Your task to perform on an android device: open app "Airtel Thanks" (install if not already installed), go to login, and select forgot password Image 0: 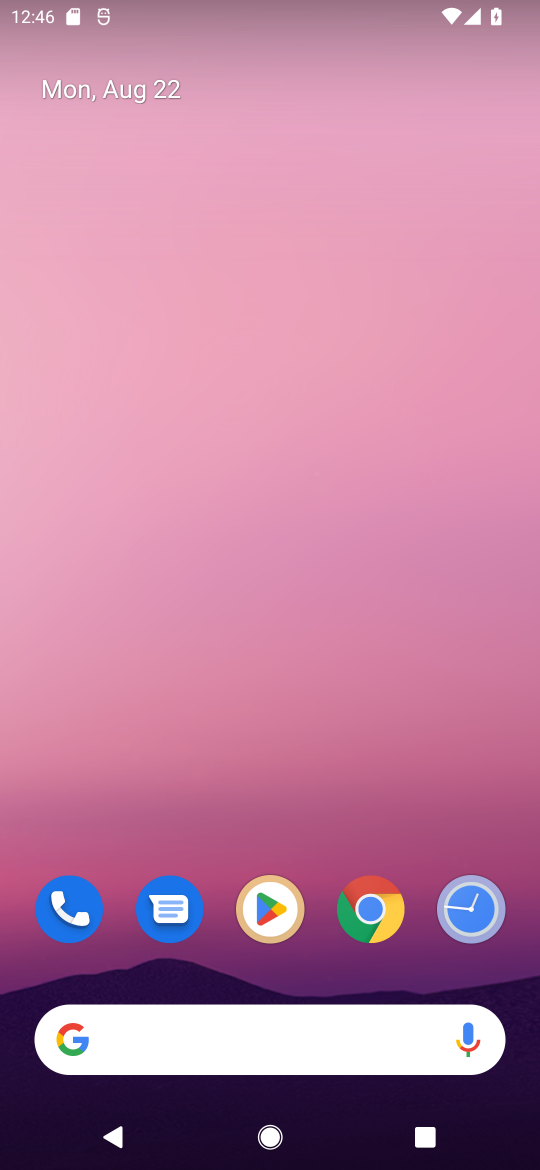
Step 0: click (281, 909)
Your task to perform on an android device: open app "Airtel Thanks" (install if not already installed), go to login, and select forgot password Image 1: 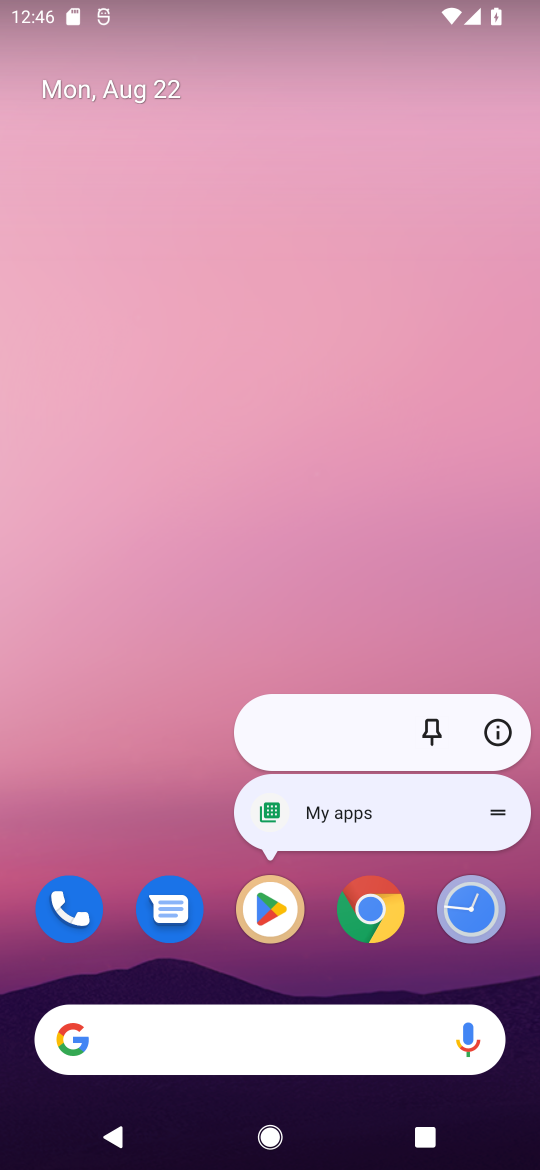
Step 1: click (274, 906)
Your task to perform on an android device: open app "Airtel Thanks" (install if not already installed), go to login, and select forgot password Image 2: 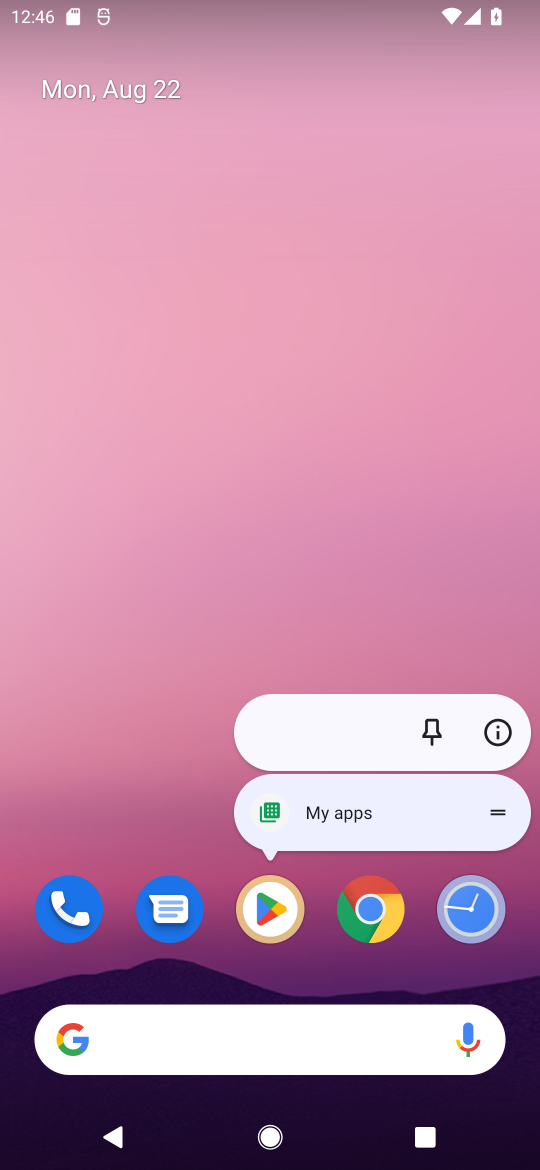
Step 2: click (263, 910)
Your task to perform on an android device: open app "Airtel Thanks" (install if not already installed), go to login, and select forgot password Image 3: 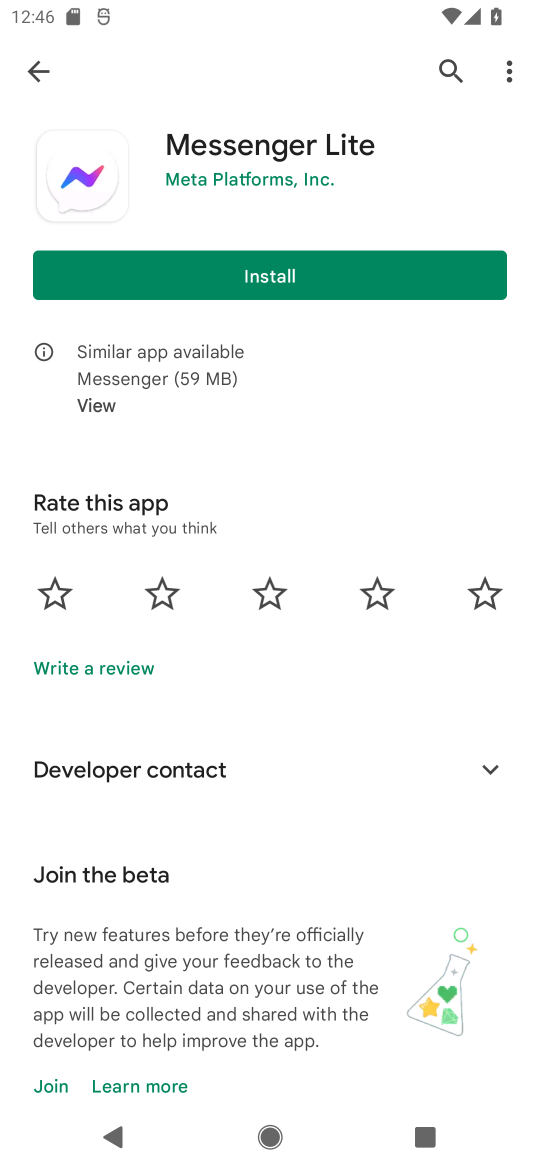
Step 3: click (460, 61)
Your task to perform on an android device: open app "Airtel Thanks" (install if not already installed), go to login, and select forgot password Image 4: 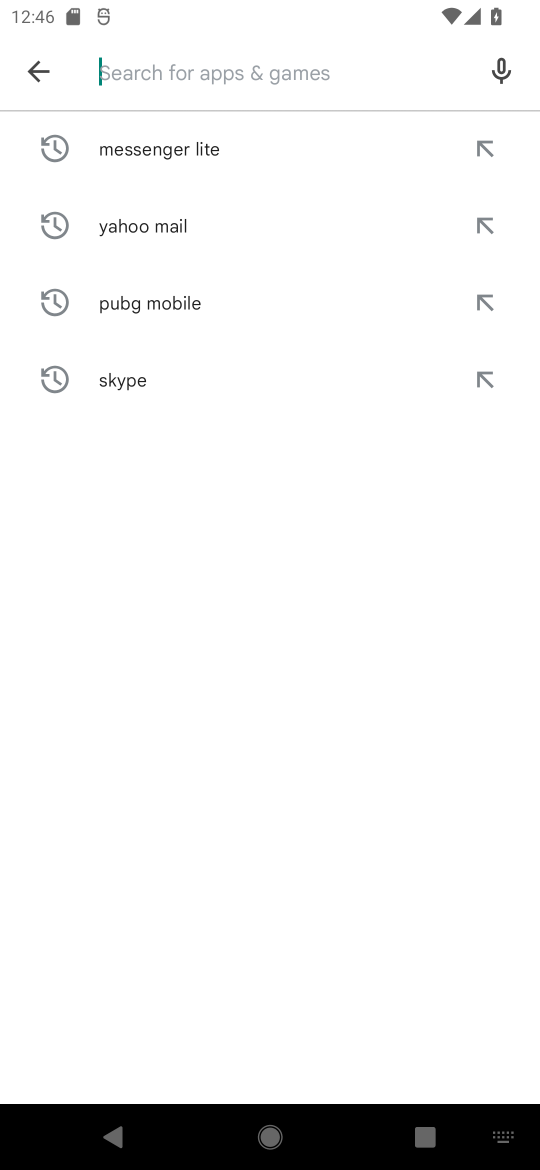
Step 4: click (122, 89)
Your task to perform on an android device: open app "Airtel Thanks" (install if not already installed), go to login, and select forgot password Image 5: 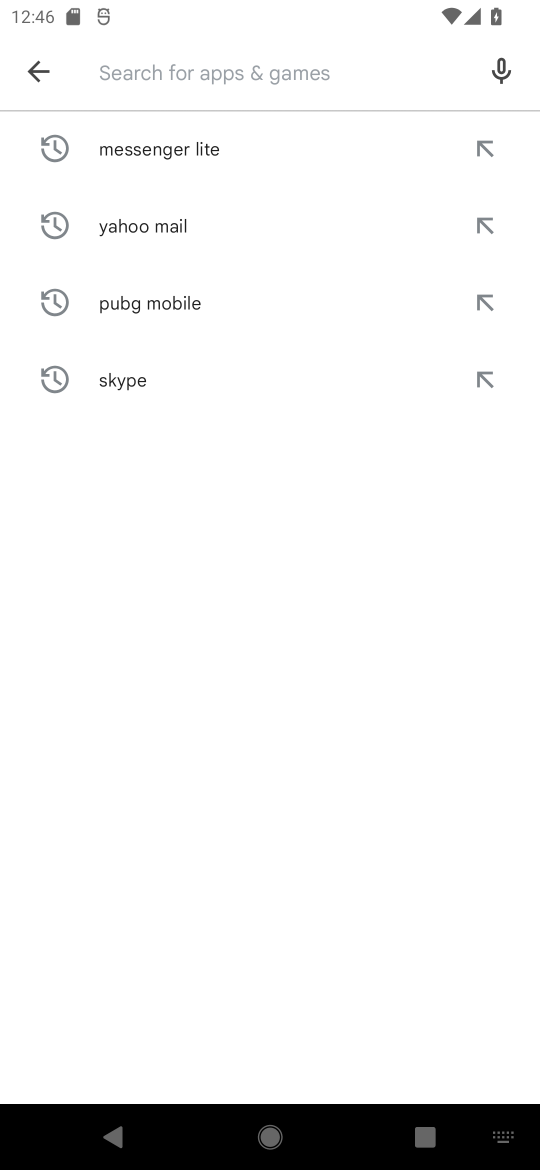
Step 5: type "Airtel Thanks"
Your task to perform on an android device: open app "Airtel Thanks" (install if not already installed), go to login, and select forgot password Image 6: 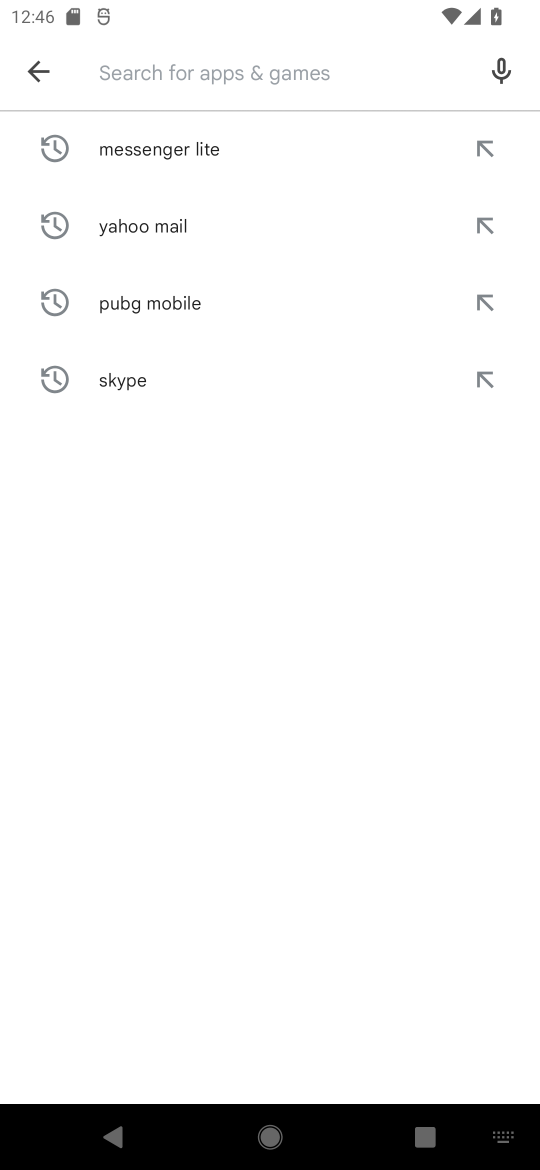
Step 6: click (360, 793)
Your task to perform on an android device: open app "Airtel Thanks" (install if not already installed), go to login, and select forgot password Image 7: 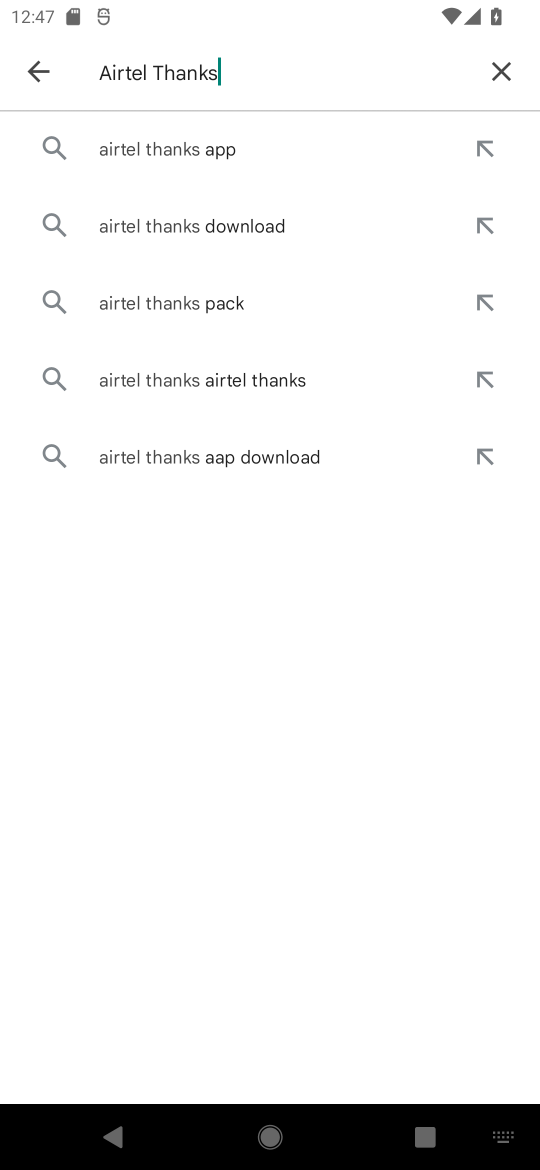
Step 7: click (217, 155)
Your task to perform on an android device: open app "Airtel Thanks" (install if not already installed), go to login, and select forgot password Image 8: 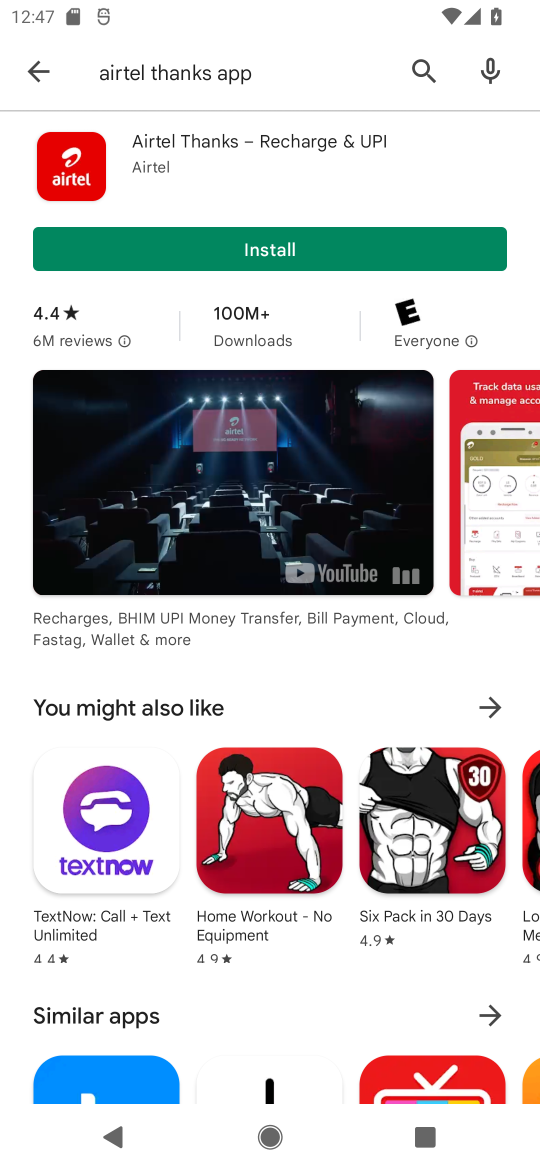
Step 8: click (267, 236)
Your task to perform on an android device: open app "Airtel Thanks" (install if not already installed), go to login, and select forgot password Image 9: 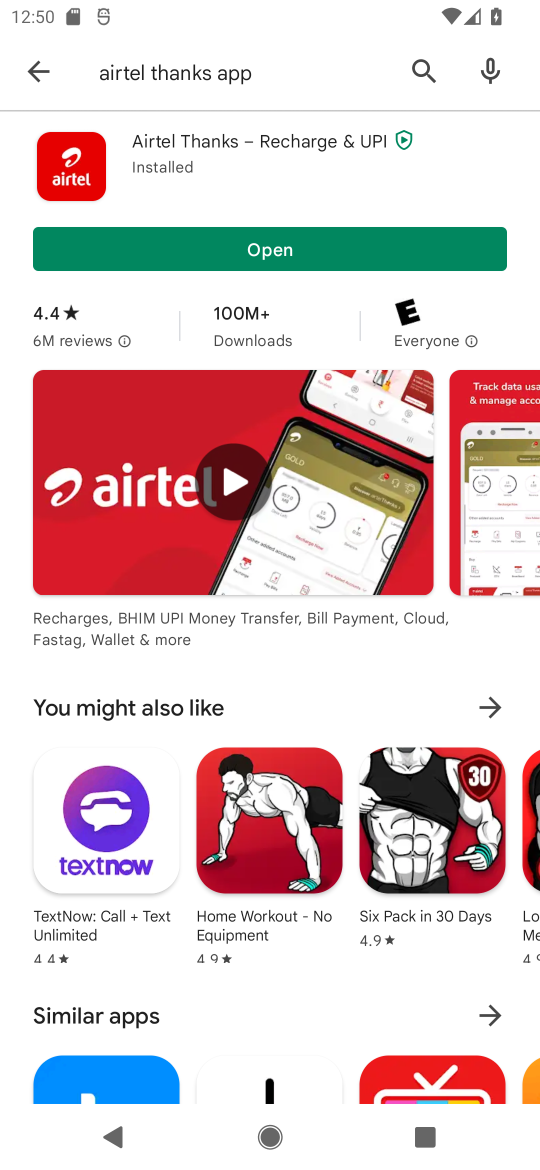
Step 9: click (147, 259)
Your task to perform on an android device: open app "Airtel Thanks" (install if not already installed), go to login, and select forgot password Image 10: 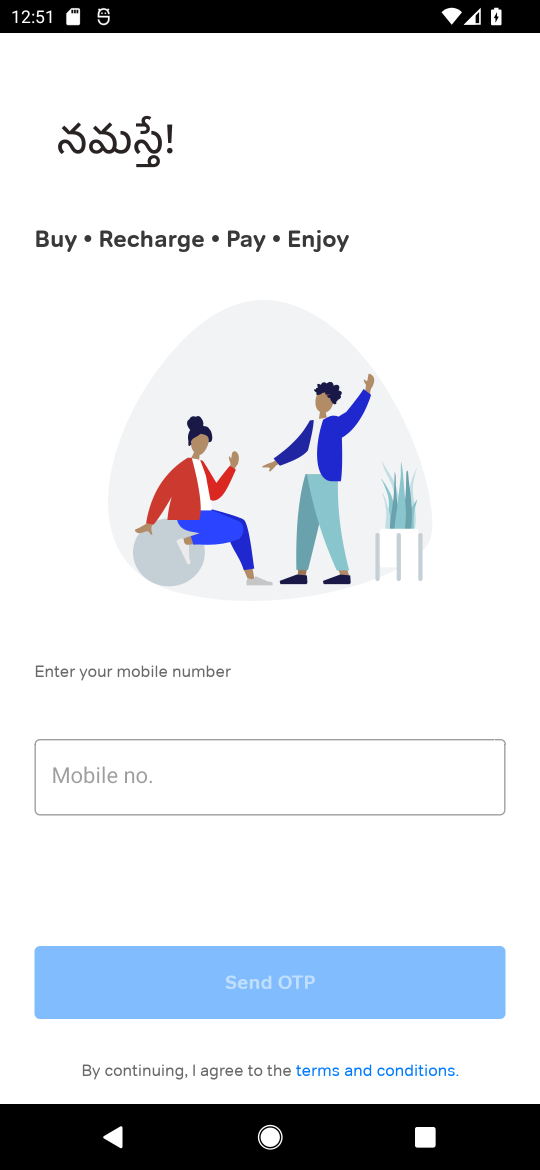
Step 10: task complete